Your task to perform on an android device: choose inbox layout in the gmail app Image 0: 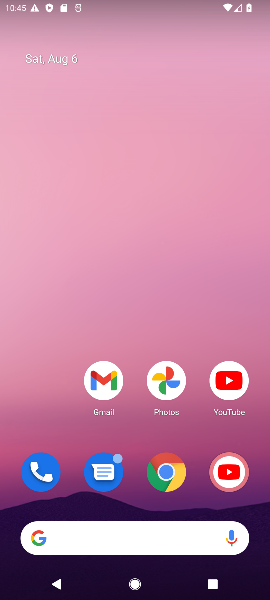
Step 0: drag from (208, 495) to (75, 0)
Your task to perform on an android device: choose inbox layout in the gmail app Image 1: 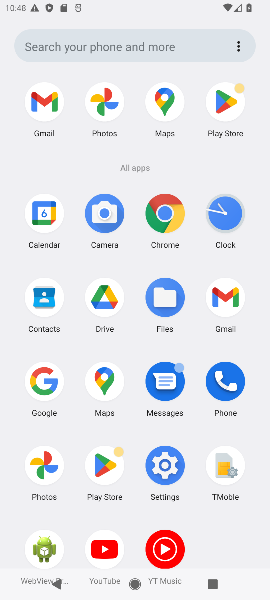
Step 1: click (224, 307)
Your task to perform on an android device: choose inbox layout in the gmail app Image 2: 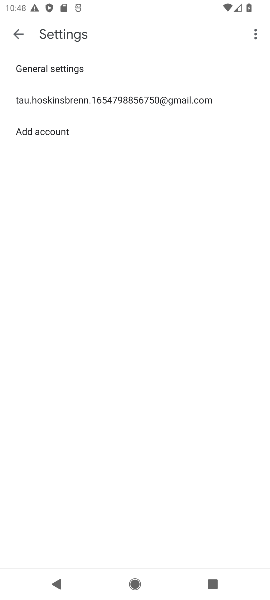
Step 2: task complete